Your task to perform on an android device: change the upload size in google photos Image 0: 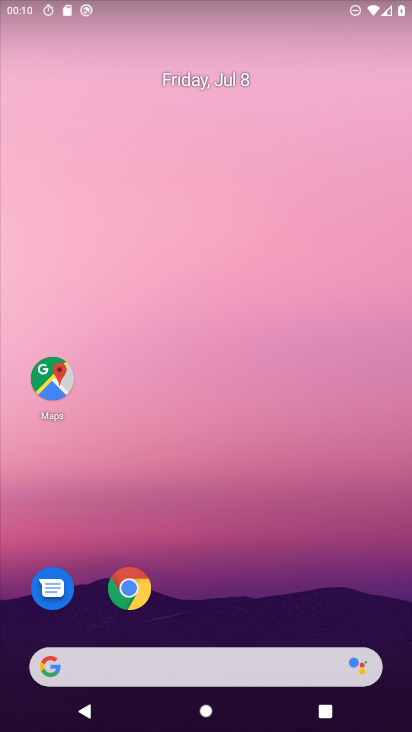
Step 0: drag from (273, 550) to (100, 1)
Your task to perform on an android device: change the upload size in google photos Image 1: 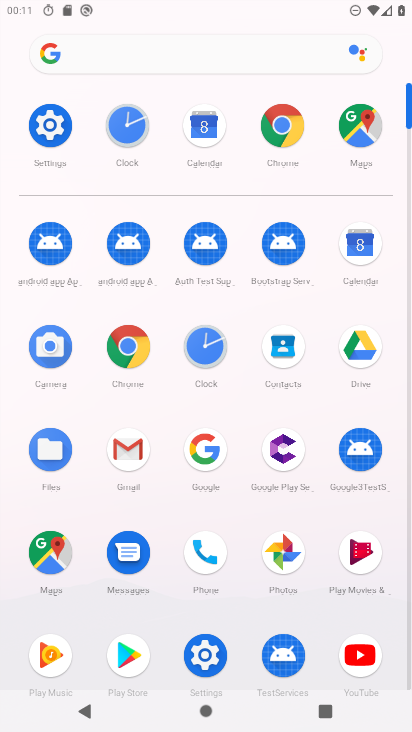
Step 1: click (288, 552)
Your task to perform on an android device: change the upload size in google photos Image 2: 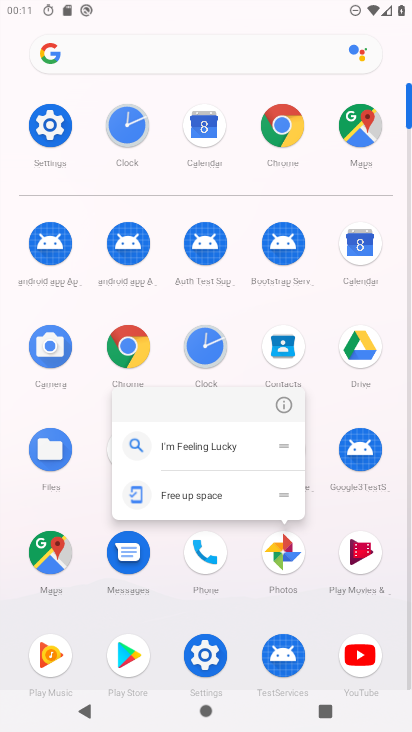
Step 2: click (278, 553)
Your task to perform on an android device: change the upload size in google photos Image 3: 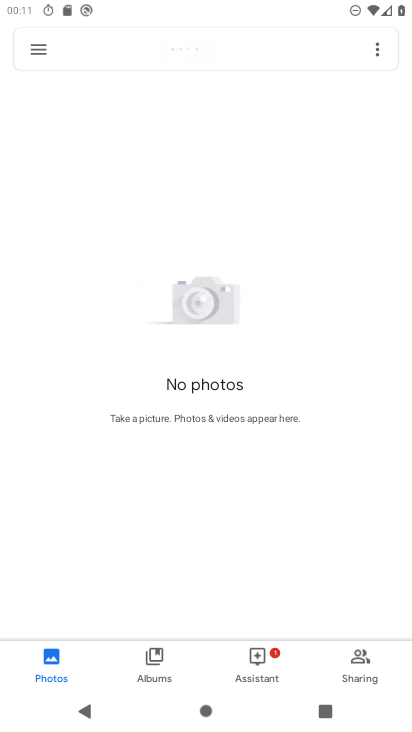
Step 3: click (38, 49)
Your task to perform on an android device: change the upload size in google photos Image 4: 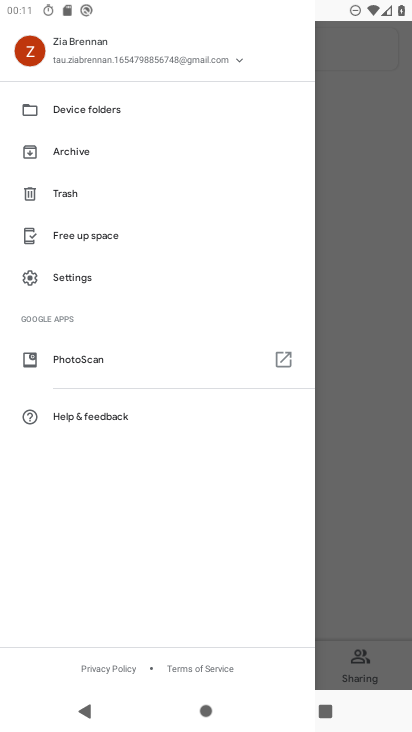
Step 4: click (76, 278)
Your task to perform on an android device: change the upload size in google photos Image 5: 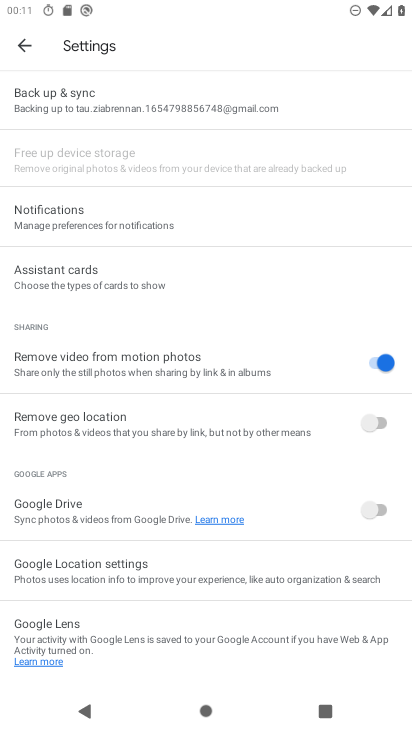
Step 5: click (101, 99)
Your task to perform on an android device: change the upload size in google photos Image 6: 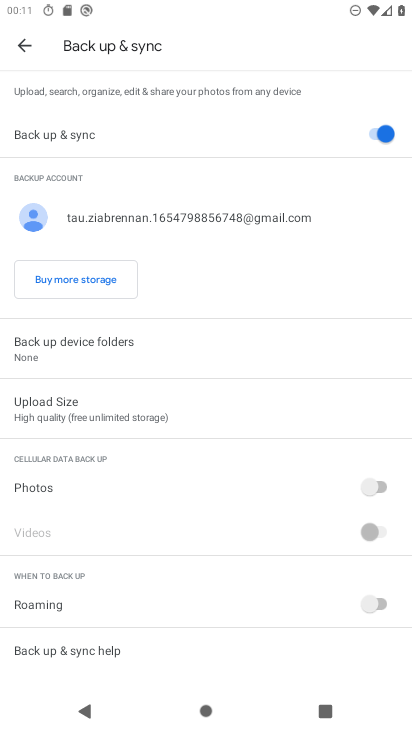
Step 6: click (108, 403)
Your task to perform on an android device: change the upload size in google photos Image 7: 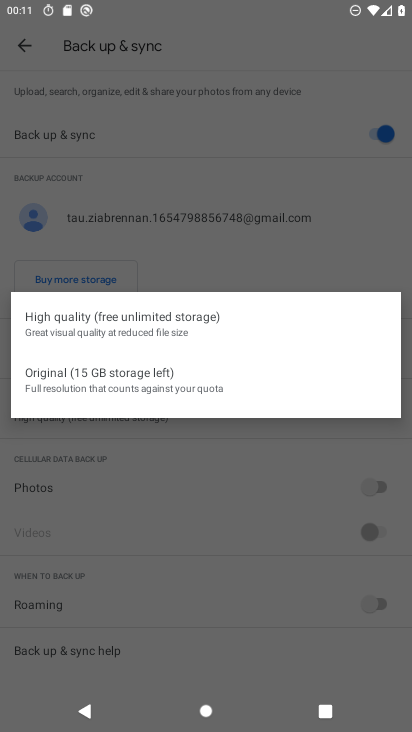
Step 7: click (82, 378)
Your task to perform on an android device: change the upload size in google photos Image 8: 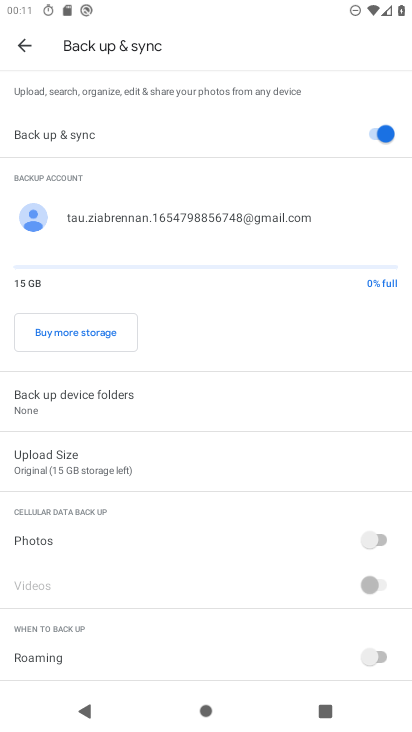
Step 8: task complete